Your task to perform on an android device: Open settings Image 0: 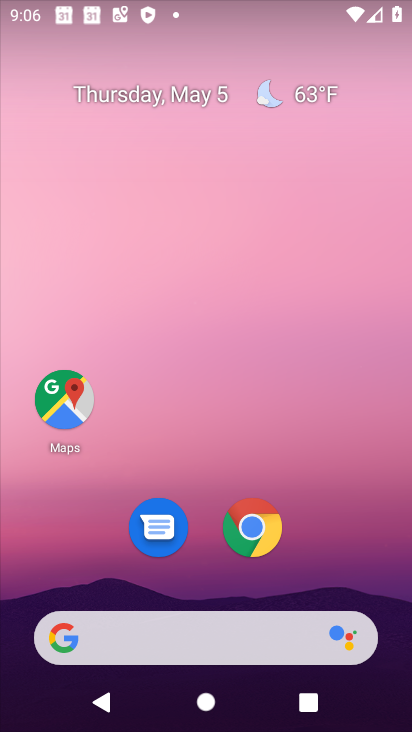
Step 0: drag from (267, 694) to (295, 22)
Your task to perform on an android device: Open settings Image 1: 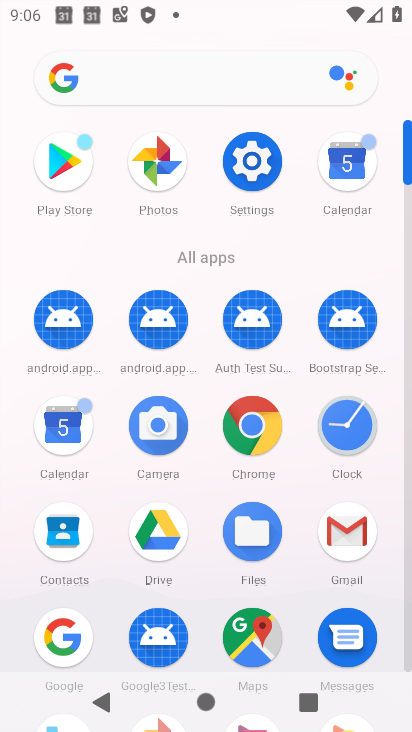
Step 1: click (249, 157)
Your task to perform on an android device: Open settings Image 2: 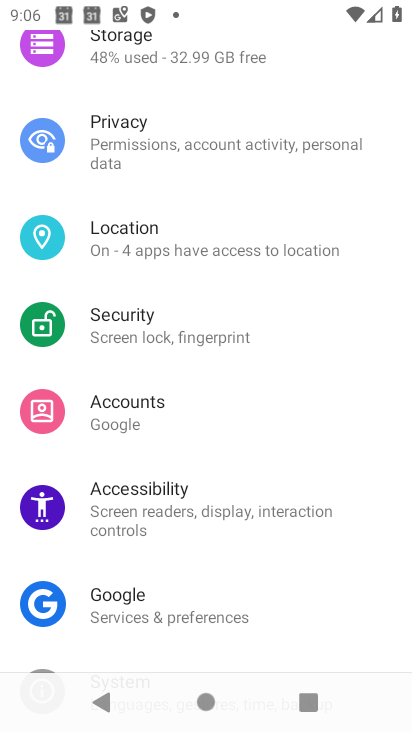
Step 2: task complete